Your task to perform on an android device: Go to location settings Image 0: 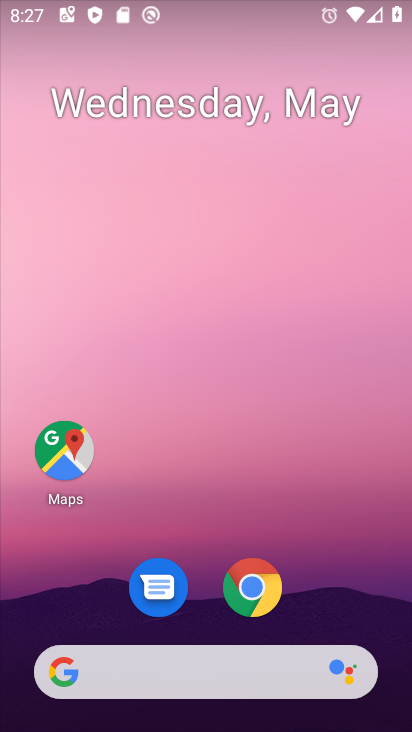
Step 0: drag from (210, 596) to (292, 164)
Your task to perform on an android device: Go to location settings Image 1: 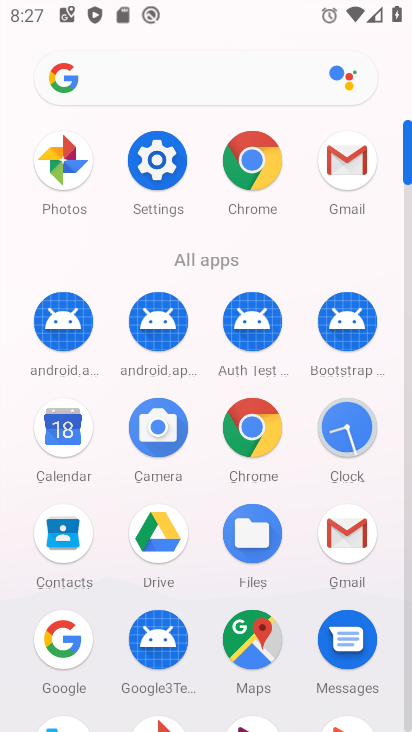
Step 1: click (171, 164)
Your task to perform on an android device: Go to location settings Image 2: 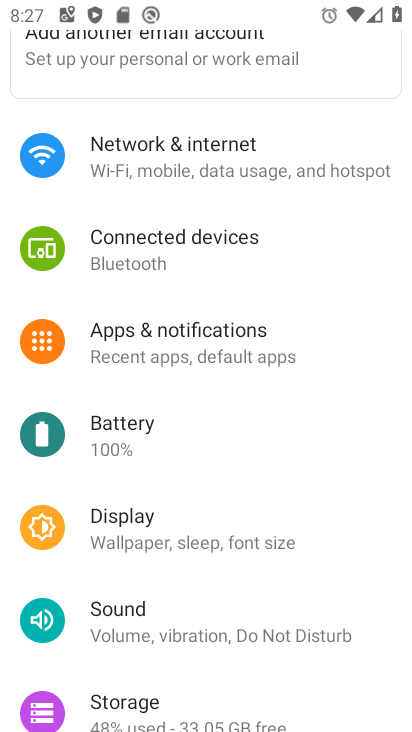
Step 2: drag from (154, 541) to (208, 230)
Your task to perform on an android device: Go to location settings Image 3: 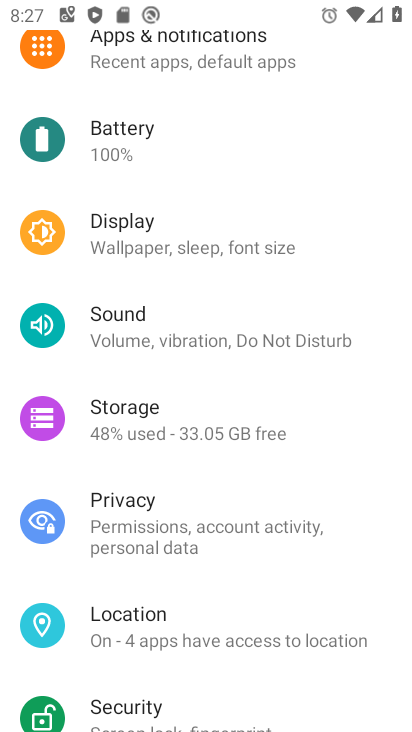
Step 3: click (120, 633)
Your task to perform on an android device: Go to location settings Image 4: 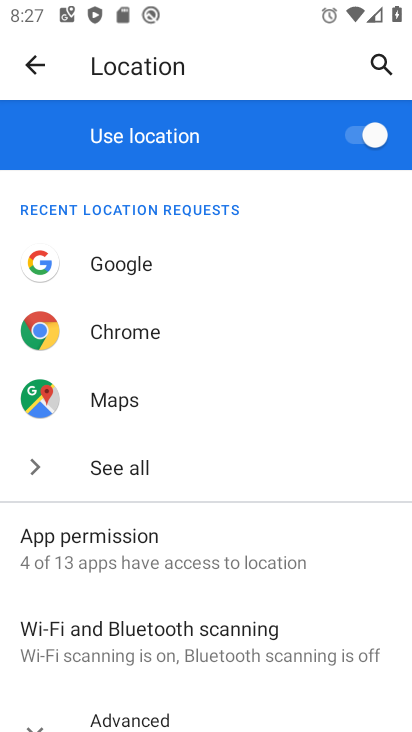
Step 4: task complete